Your task to perform on an android device: turn on the 24-hour format for clock Image 0: 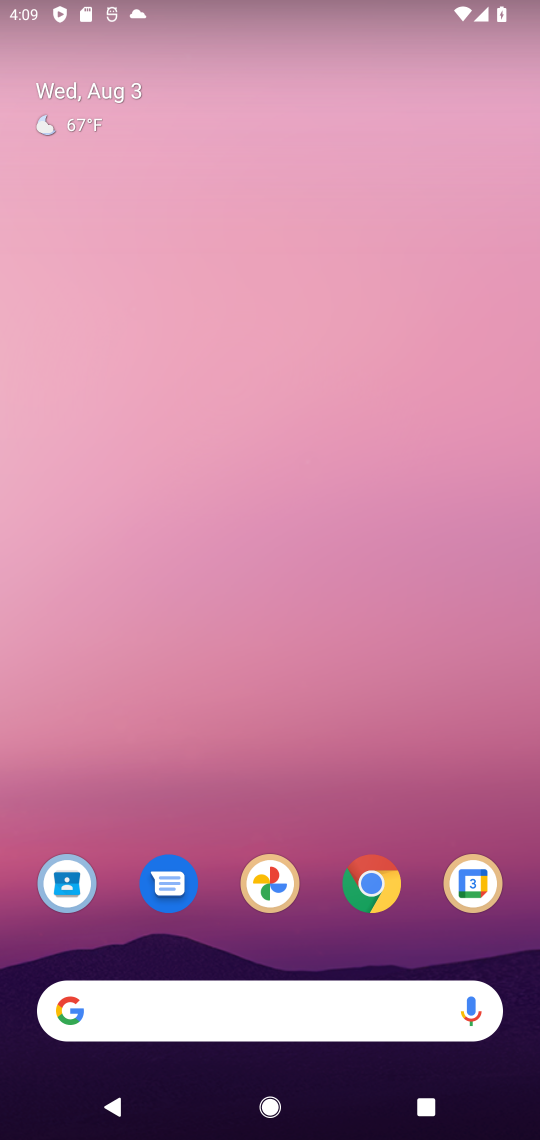
Step 0: drag from (302, 953) to (341, 2)
Your task to perform on an android device: turn on the 24-hour format for clock Image 1: 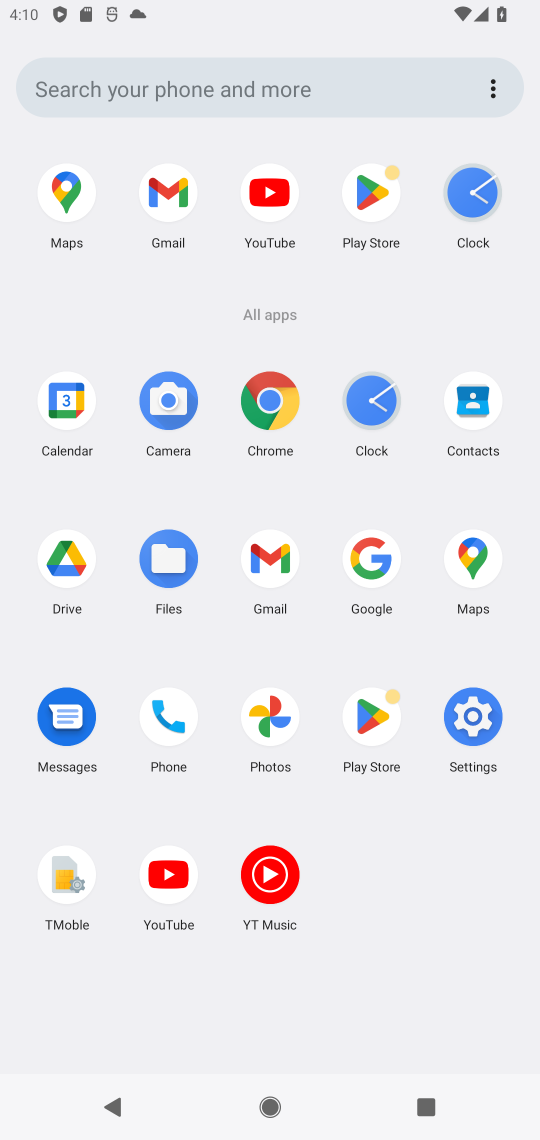
Step 1: click (486, 729)
Your task to perform on an android device: turn on the 24-hour format for clock Image 2: 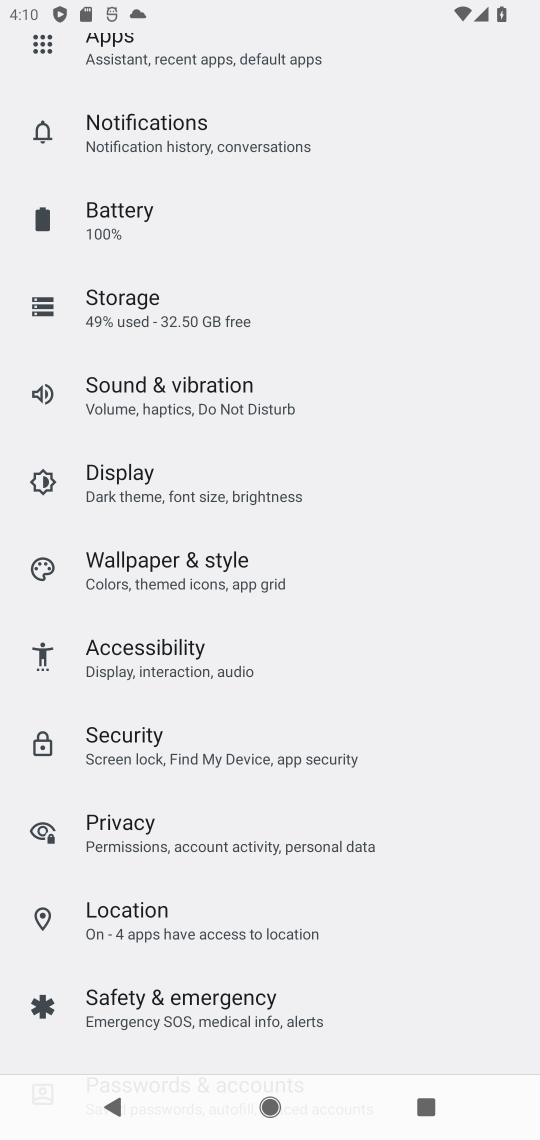
Step 2: drag from (197, 817) to (231, 483)
Your task to perform on an android device: turn on the 24-hour format for clock Image 3: 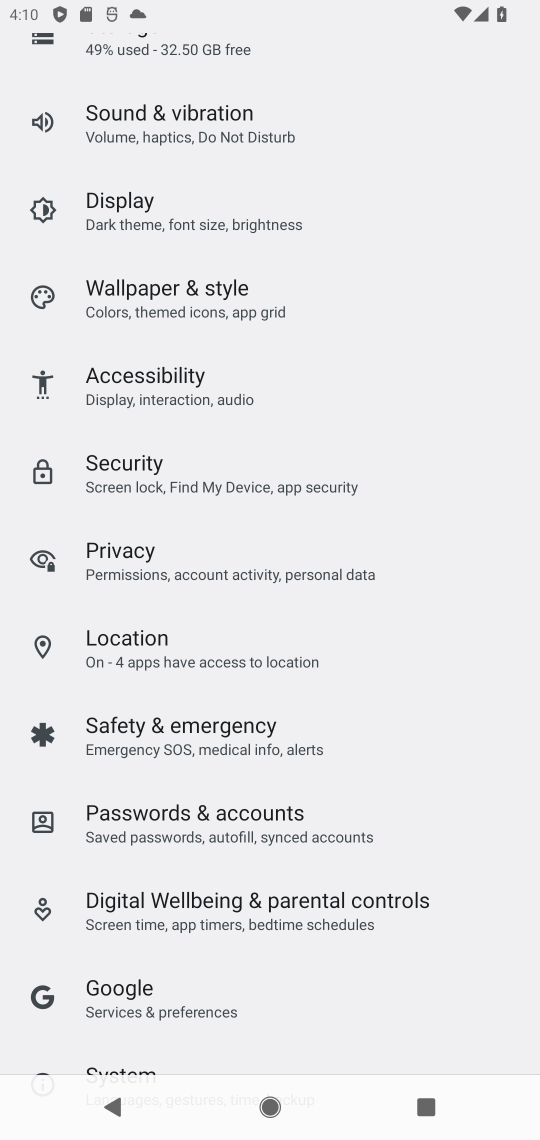
Step 3: drag from (173, 867) to (174, 632)
Your task to perform on an android device: turn on the 24-hour format for clock Image 4: 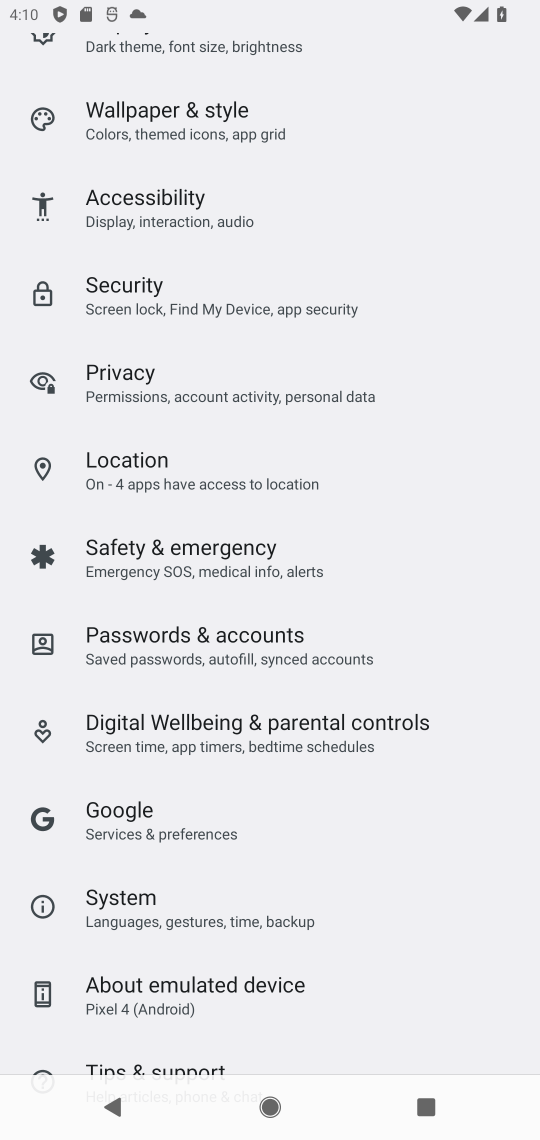
Step 4: drag from (218, 958) to (247, 608)
Your task to perform on an android device: turn on the 24-hour format for clock Image 5: 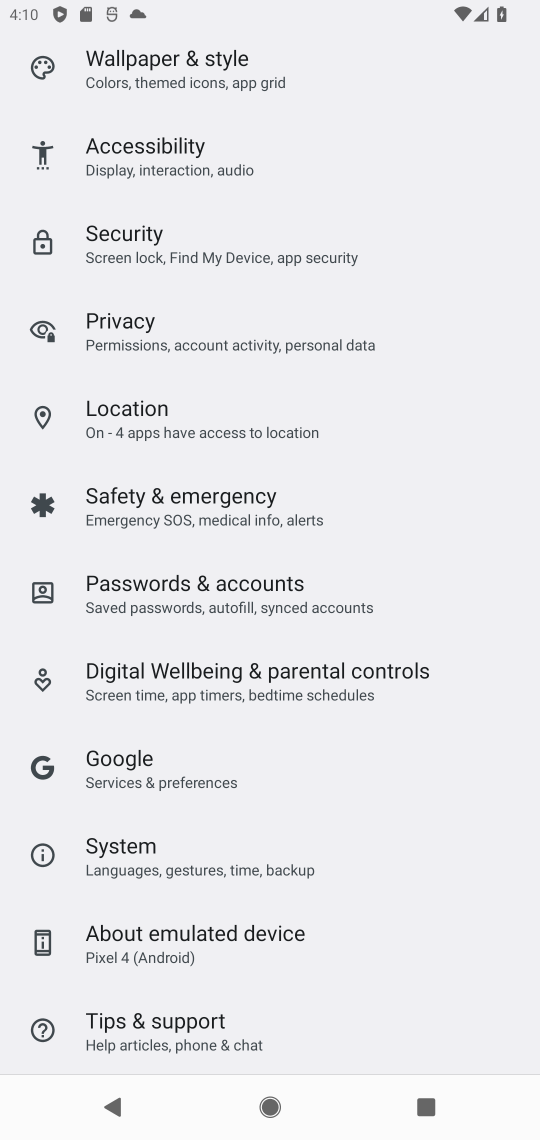
Step 5: drag from (201, 141) to (208, 358)
Your task to perform on an android device: turn on the 24-hour format for clock Image 6: 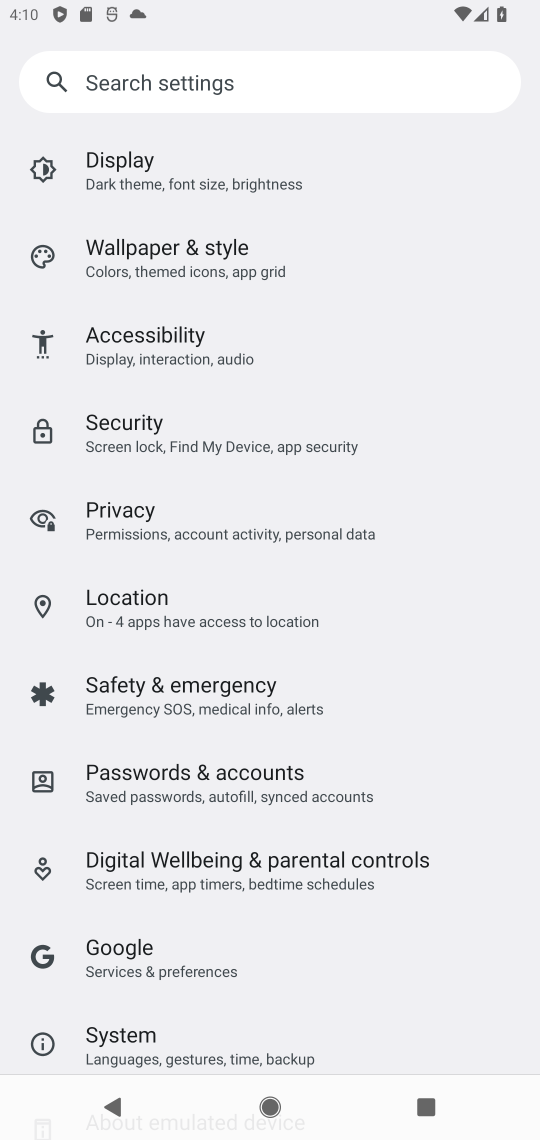
Step 6: click (117, 1048)
Your task to perform on an android device: turn on the 24-hour format for clock Image 7: 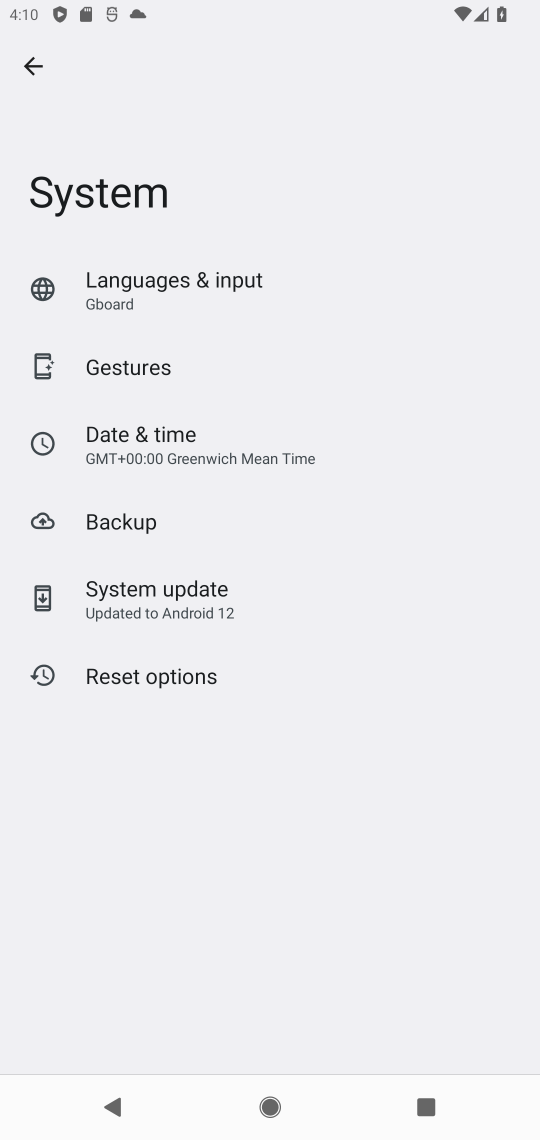
Step 7: click (168, 456)
Your task to perform on an android device: turn on the 24-hour format for clock Image 8: 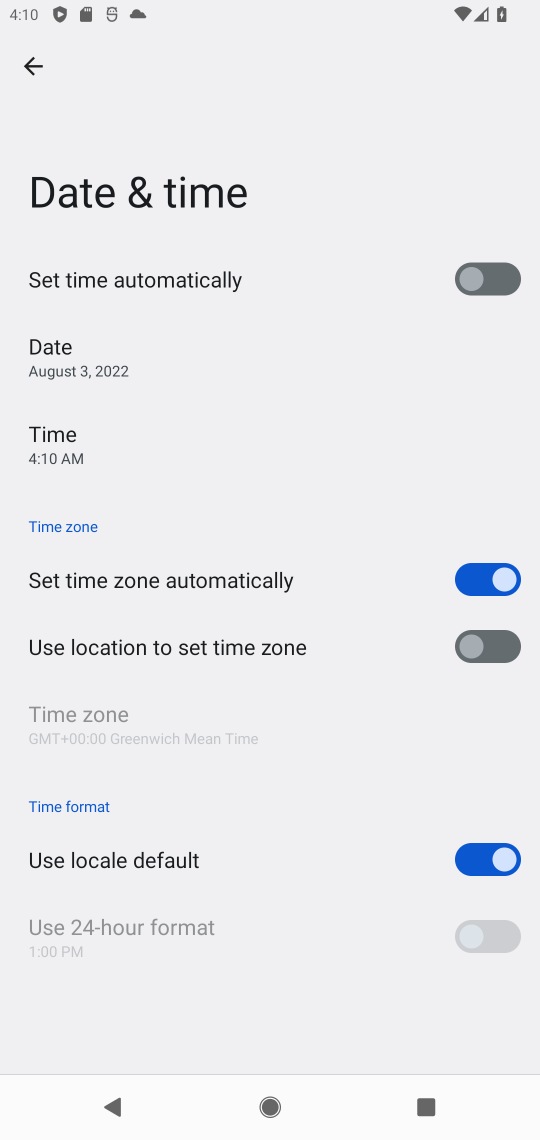
Step 8: click (445, 848)
Your task to perform on an android device: turn on the 24-hour format for clock Image 9: 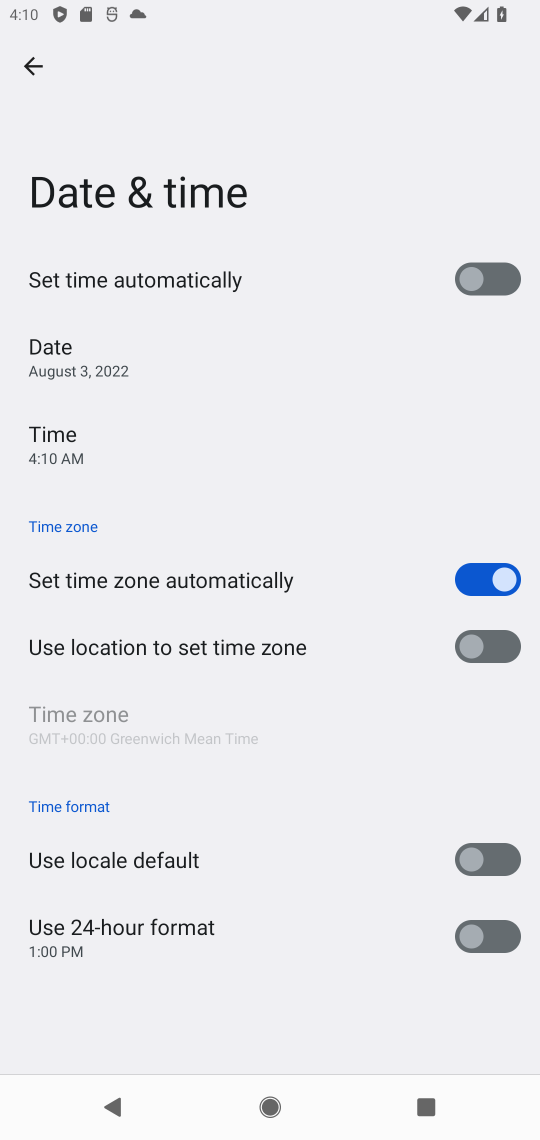
Step 9: click (524, 929)
Your task to perform on an android device: turn on the 24-hour format for clock Image 10: 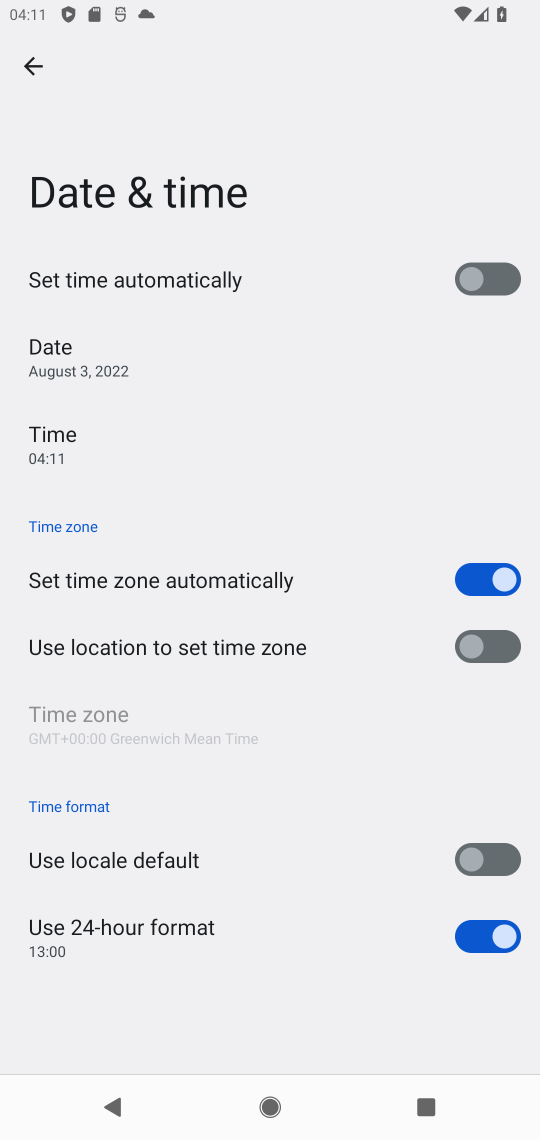
Step 10: task complete